Your task to perform on an android device: Open privacy settings Image 0: 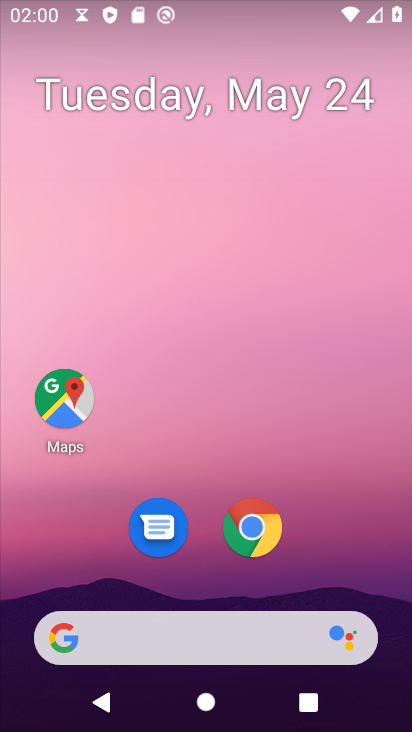
Step 0: press home button
Your task to perform on an android device: Open privacy settings Image 1: 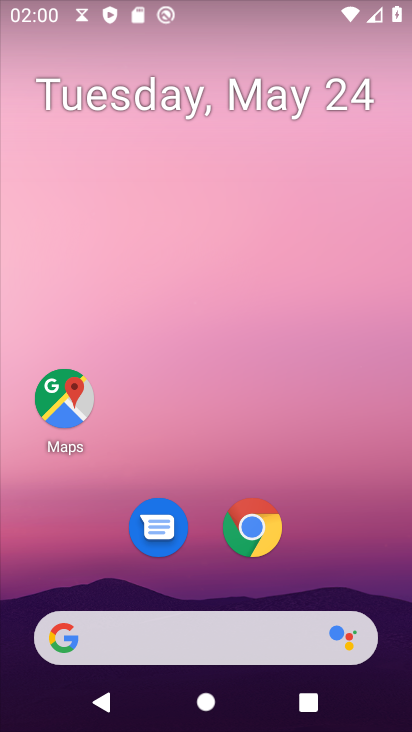
Step 1: drag from (188, 650) to (272, 168)
Your task to perform on an android device: Open privacy settings Image 2: 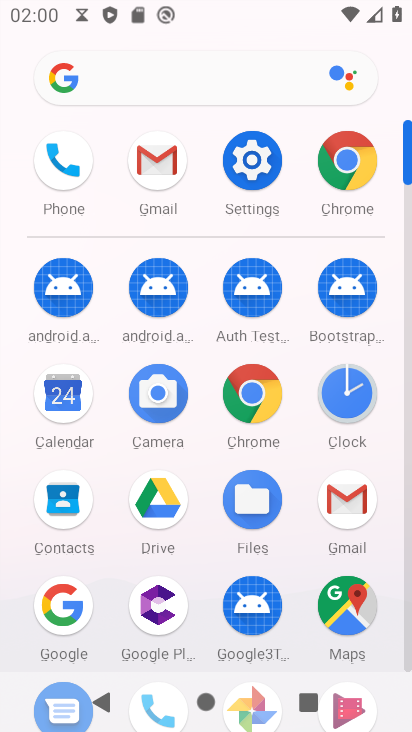
Step 2: click (256, 181)
Your task to perform on an android device: Open privacy settings Image 3: 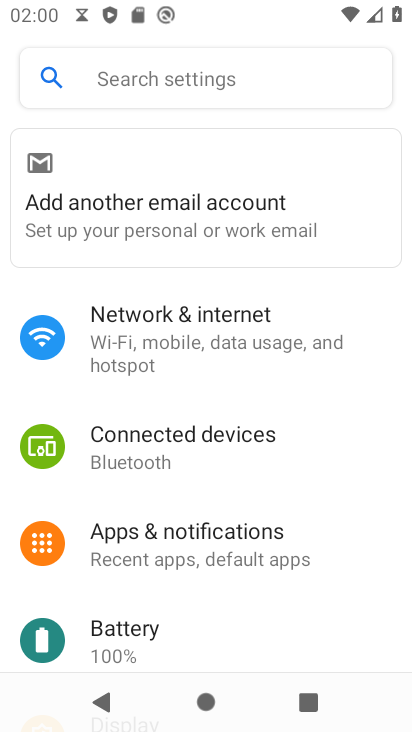
Step 3: drag from (274, 653) to (274, 353)
Your task to perform on an android device: Open privacy settings Image 4: 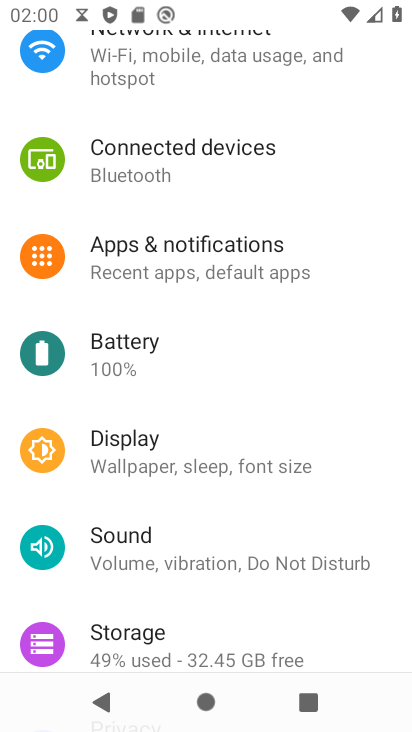
Step 4: drag from (187, 612) to (283, 233)
Your task to perform on an android device: Open privacy settings Image 5: 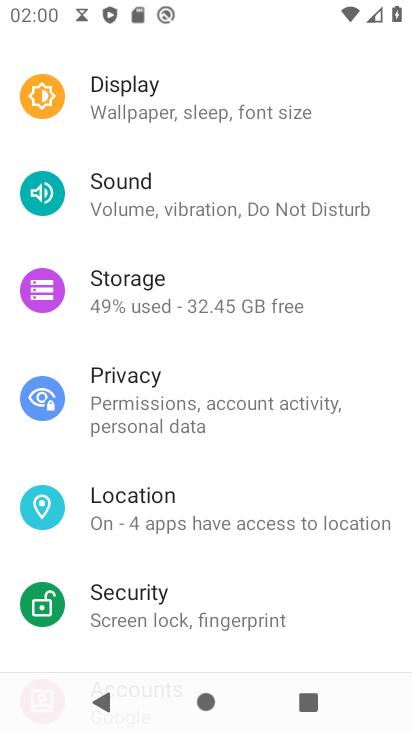
Step 5: click (170, 397)
Your task to perform on an android device: Open privacy settings Image 6: 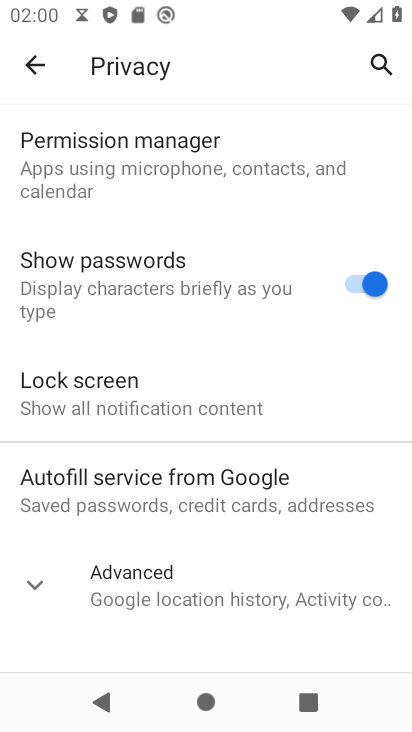
Step 6: task complete